Your task to perform on an android device: find snoozed emails in the gmail app Image 0: 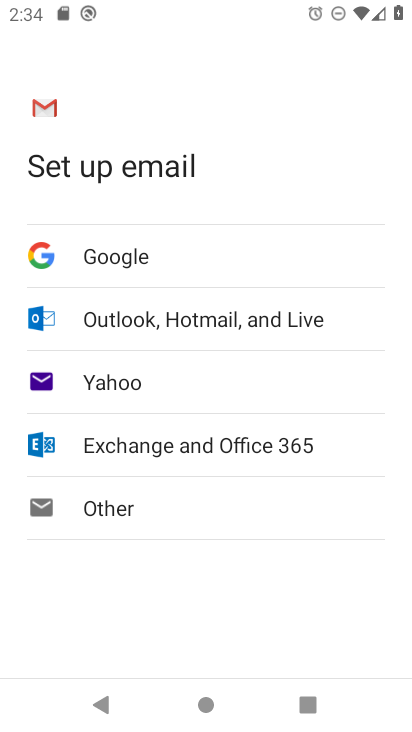
Step 0: press home button
Your task to perform on an android device: find snoozed emails in the gmail app Image 1: 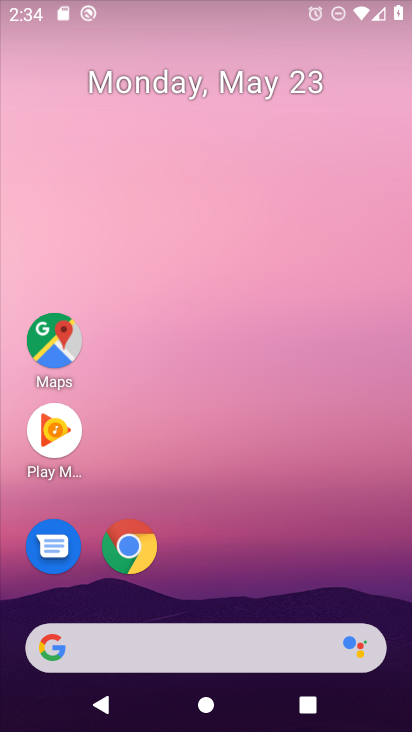
Step 1: drag from (194, 661) to (196, 164)
Your task to perform on an android device: find snoozed emails in the gmail app Image 2: 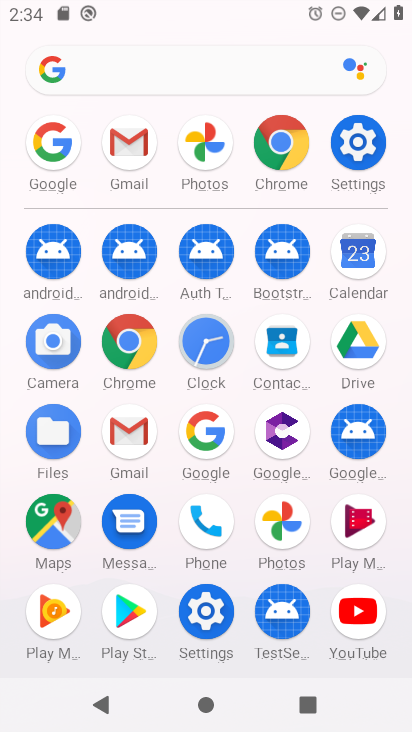
Step 2: click (135, 437)
Your task to perform on an android device: find snoozed emails in the gmail app Image 3: 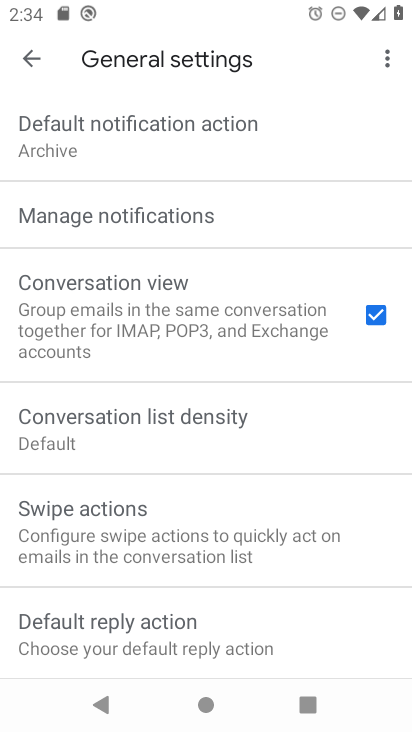
Step 3: click (33, 54)
Your task to perform on an android device: find snoozed emails in the gmail app Image 4: 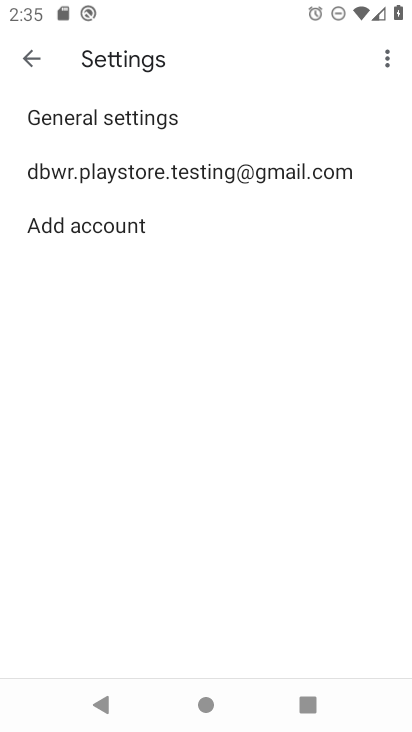
Step 4: click (32, 61)
Your task to perform on an android device: find snoozed emails in the gmail app Image 5: 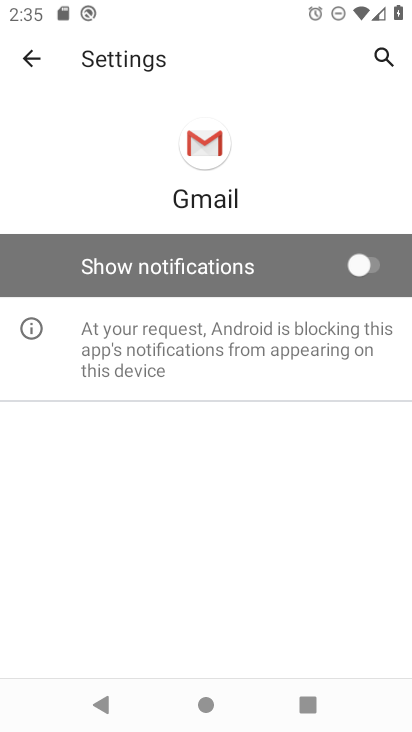
Step 5: click (35, 62)
Your task to perform on an android device: find snoozed emails in the gmail app Image 6: 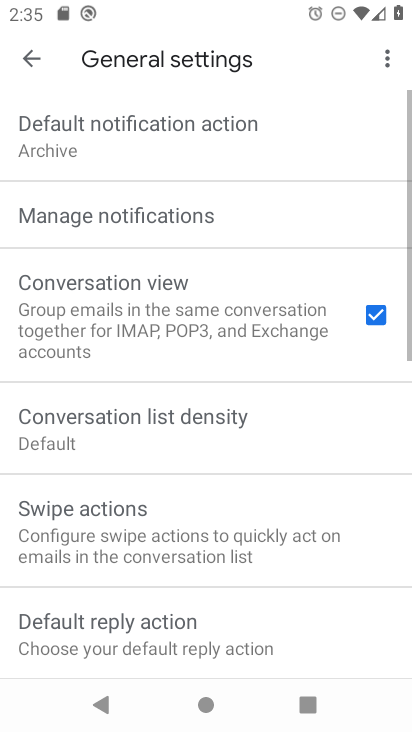
Step 6: click (35, 62)
Your task to perform on an android device: find snoozed emails in the gmail app Image 7: 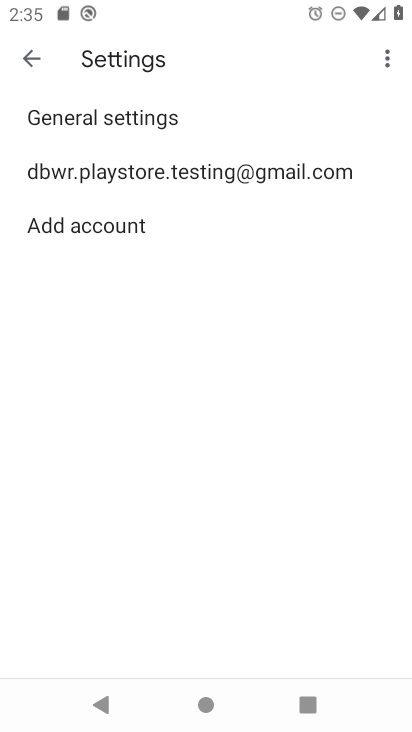
Step 7: click (35, 62)
Your task to perform on an android device: find snoozed emails in the gmail app Image 8: 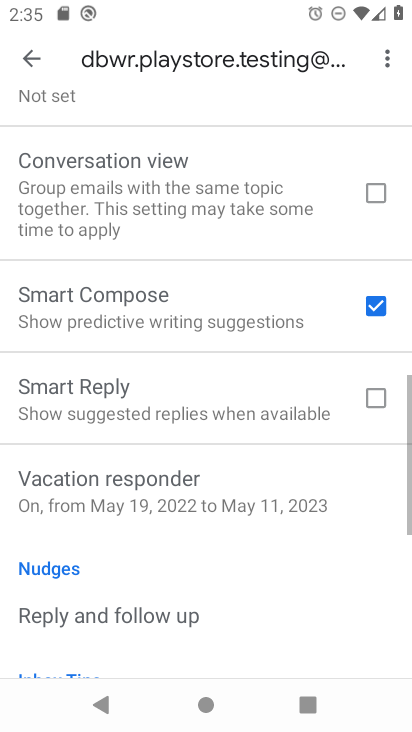
Step 8: click (26, 66)
Your task to perform on an android device: find snoozed emails in the gmail app Image 9: 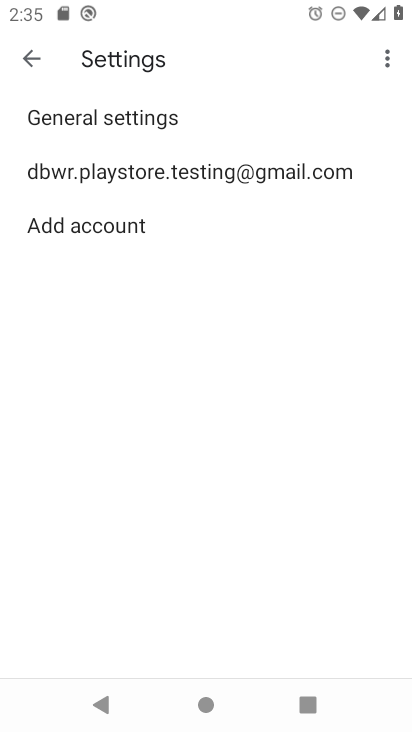
Step 9: click (26, 64)
Your task to perform on an android device: find snoozed emails in the gmail app Image 10: 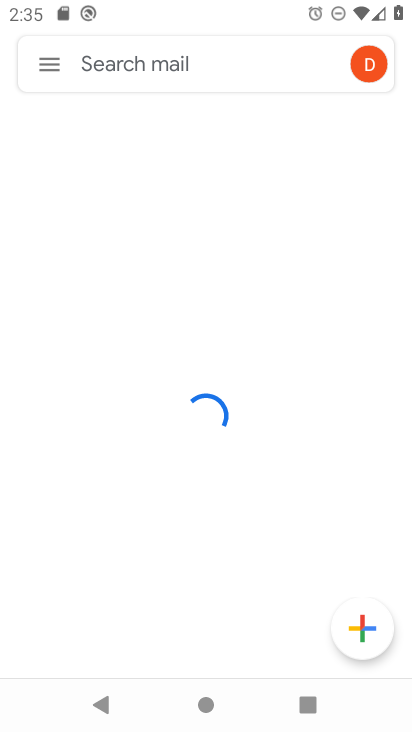
Step 10: click (53, 67)
Your task to perform on an android device: find snoozed emails in the gmail app Image 11: 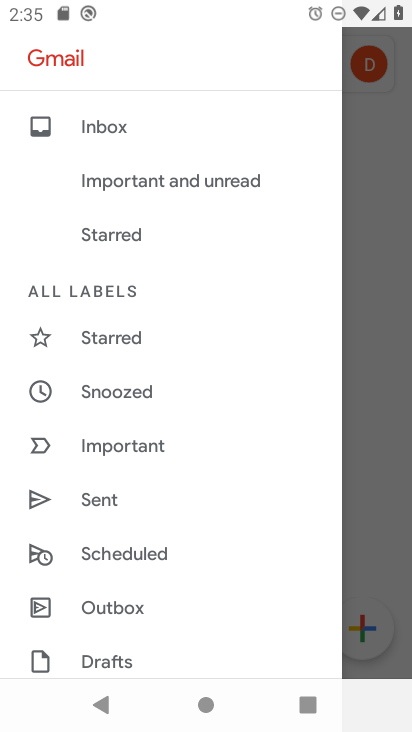
Step 11: click (130, 401)
Your task to perform on an android device: find snoozed emails in the gmail app Image 12: 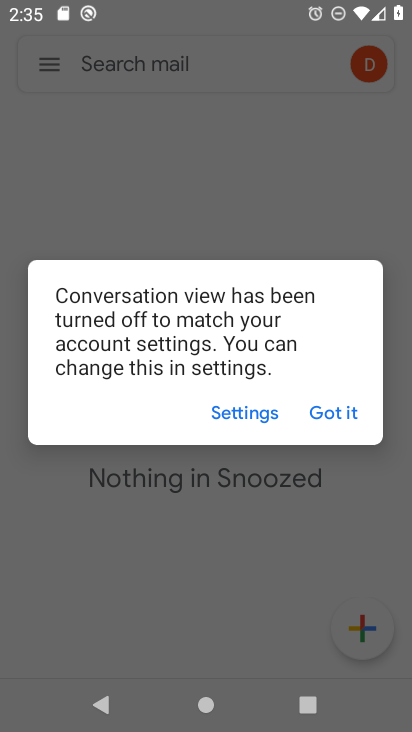
Step 12: click (342, 408)
Your task to perform on an android device: find snoozed emails in the gmail app Image 13: 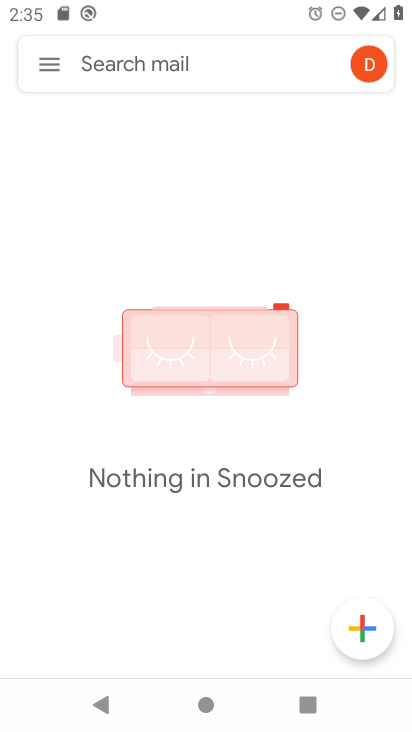
Step 13: task complete